Your task to perform on an android device: What's the weather going to be this weekend? Image 0: 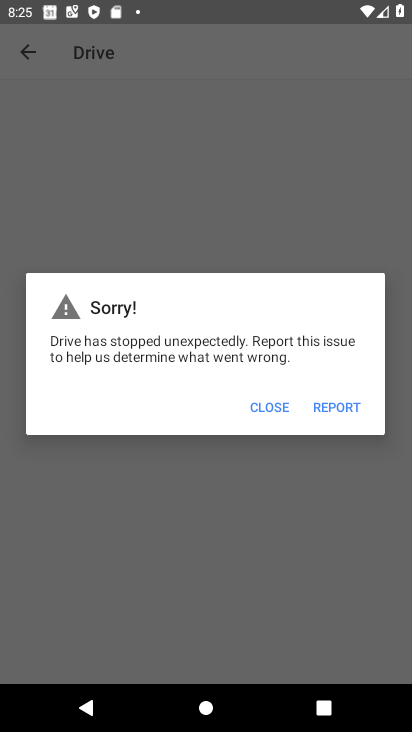
Step 0: press home button
Your task to perform on an android device: What's the weather going to be this weekend? Image 1: 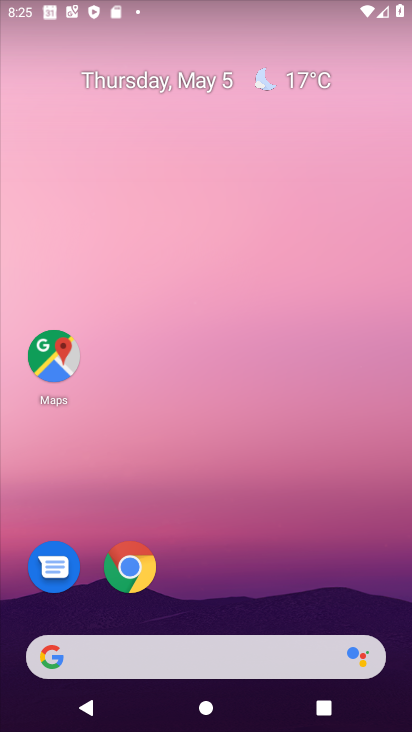
Step 1: click (302, 75)
Your task to perform on an android device: What's the weather going to be this weekend? Image 2: 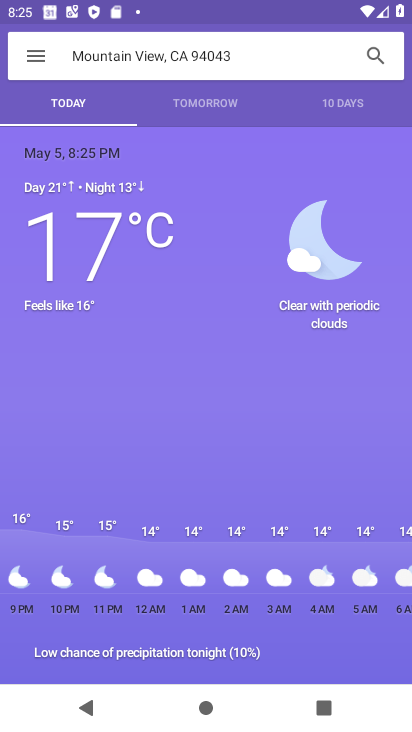
Step 2: click (339, 100)
Your task to perform on an android device: What's the weather going to be this weekend? Image 3: 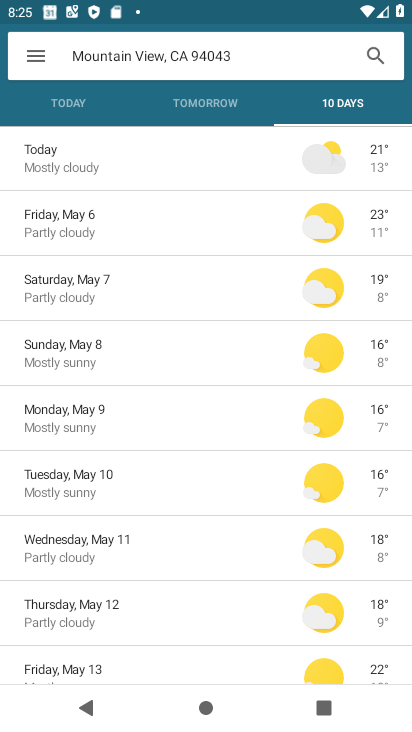
Step 3: click (185, 283)
Your task to perform on an android device: What's the weather going to be this weekend? Image 4: 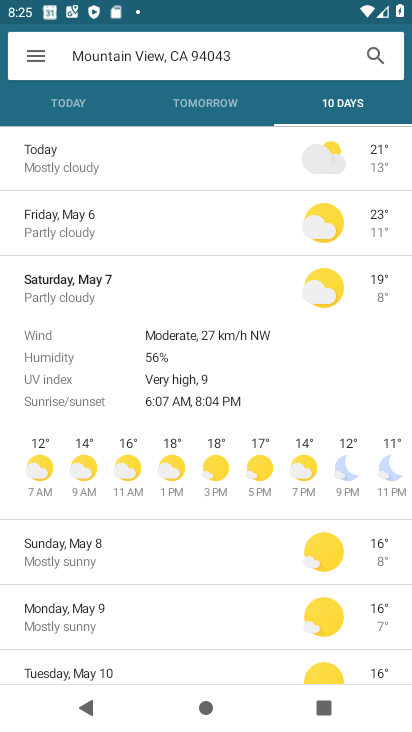
Step 4: task complete